Your task to perform on an android device: Open wifi settings Image 0: 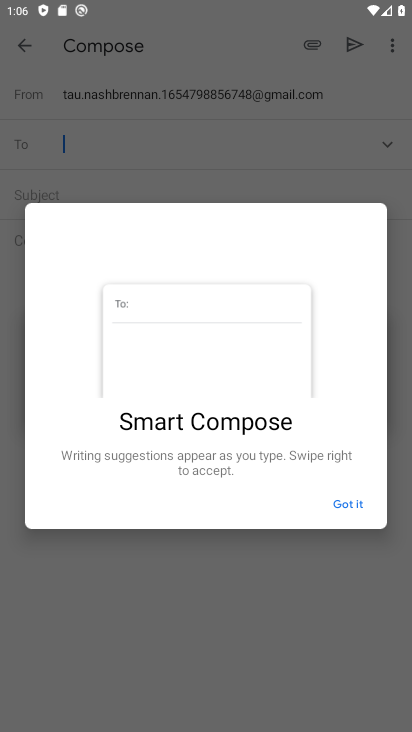
Step 0: press home button
Your task to perform on an android device: Open wifi settings Image 1: 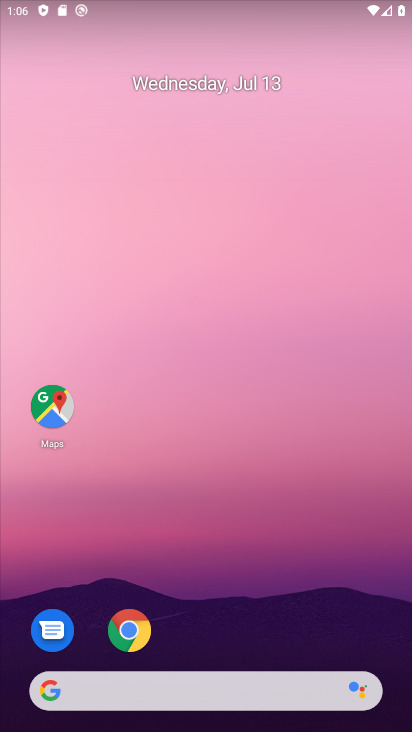
Step 1: drag from (333, 619) to (336, 68)
Your task to perform on an android device: Open wifi settings Image 2: 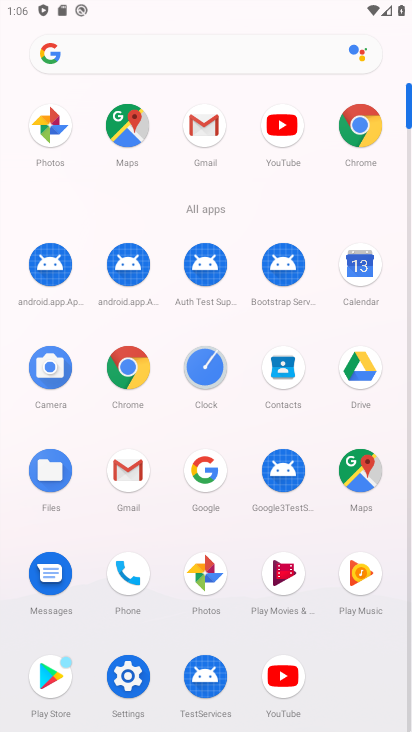
Step 2: click (128, 681)
Your task to perform on an android device: Open wifi settings Image 3: 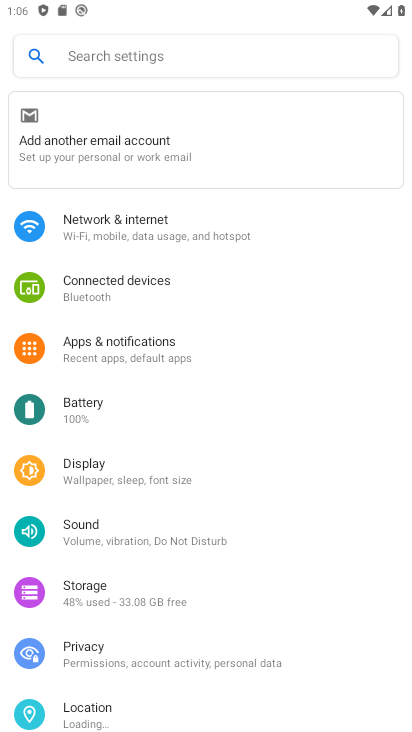
Step 3: drag from (301, 525) to (315, 369)
Your task to perform on an android device: Open wifi settings Image 4: 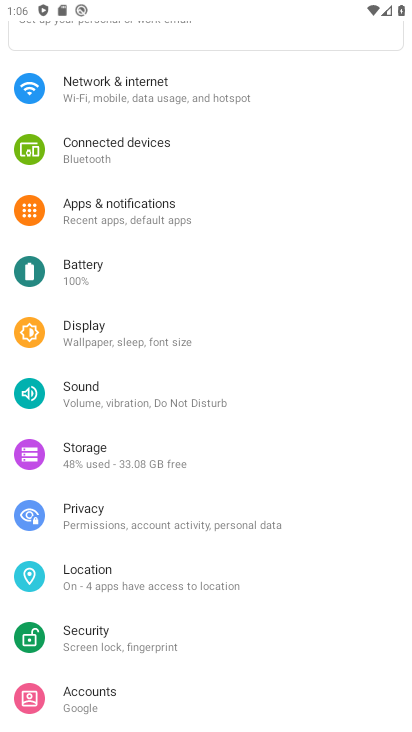
Step 4: drag from (346, 573) to (345, 388)
Your task to perform on an android device: Open wifi settings Image 5: 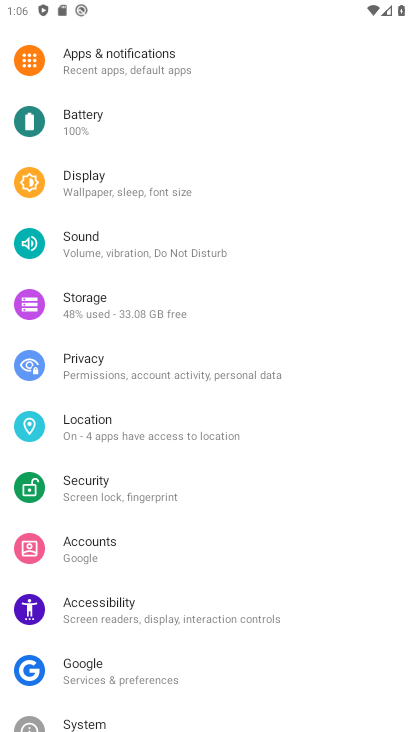
Step 5: drag from (322, 548) to (321, 402)
Your task to perform on an android device: Open wifi settings Image 6: 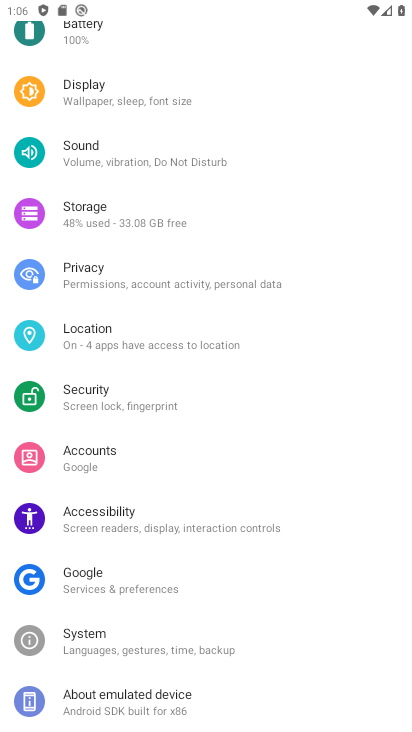
Step 6: drag from (319, 558) to (319, 379)
Your task to perform on an android device: Open wifi settings Image 7: 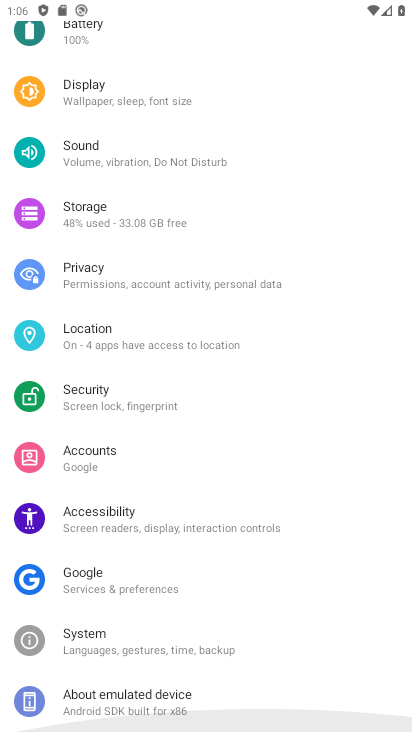
Step 7: drag from (326, 328) to (315, 457)
Your task to perform on an android device: Open wifi settings Image 8: 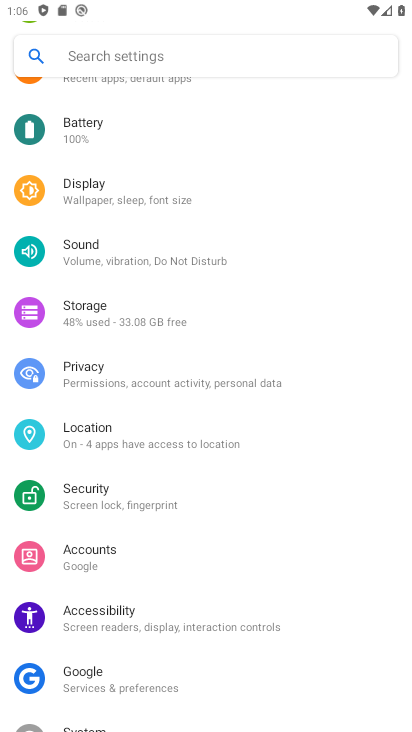
Step 8: drag from (301, 314) to (291, 479)
Your task to perform on an android device: Open wifi settings Image 9: 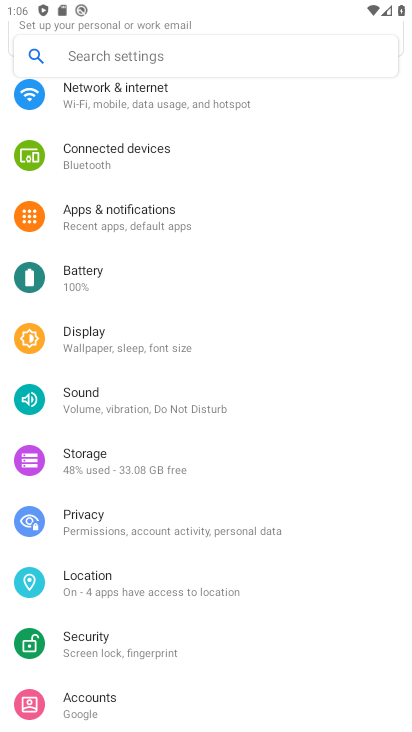
Step 9: drag from (328, 296) to (332, 442)
Your task to perform on an android device: Open wifi settings Image 10: 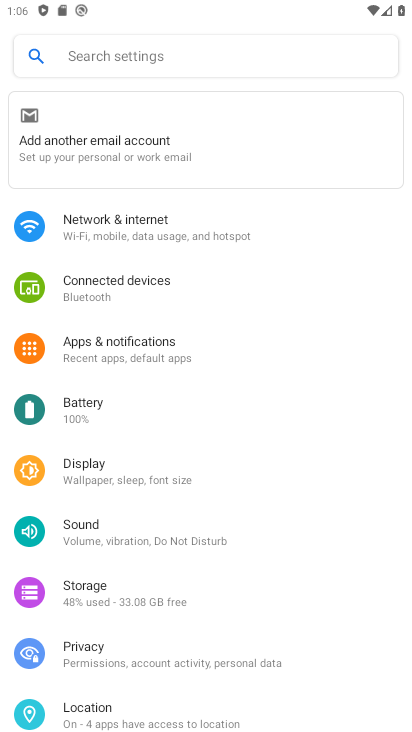
Step 10: drag from (328, 274) to (313, 538)
Your task to perform on an android device: Open wifi settings Image 11: 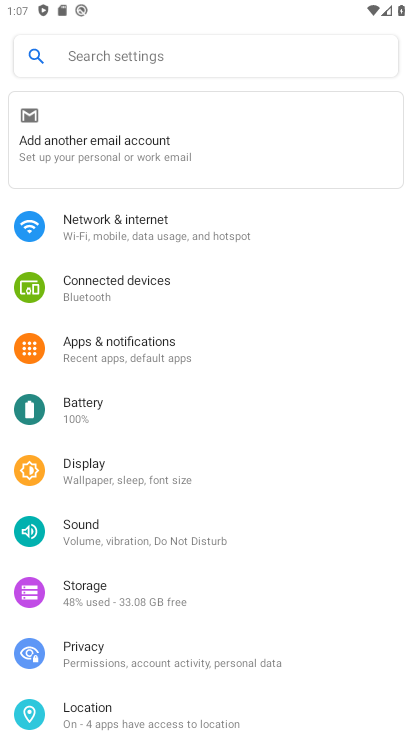
Step 11: click (204, 231)
Your task to perform on an android device: Open wifi settings Image 12: 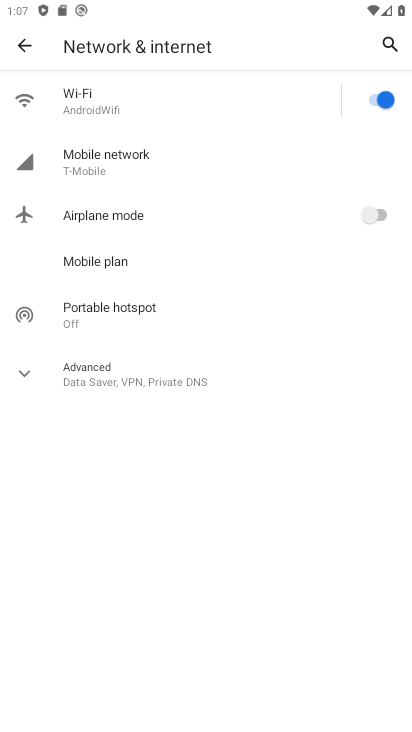
Step 12: click (98, 99)
Your task to perform on an android device: Open wifi settings Image 13: 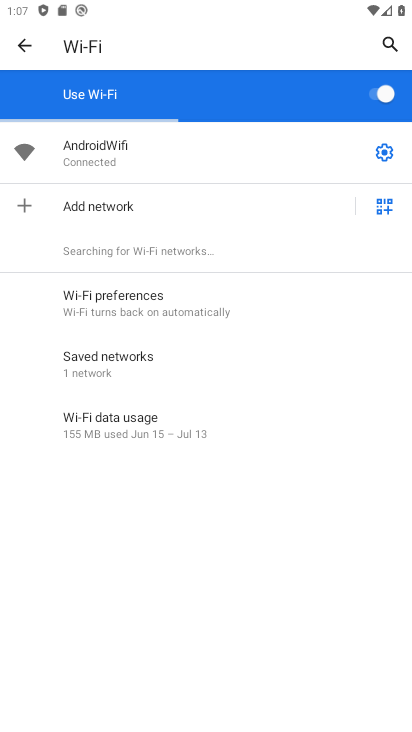
Step 13: task complete